Your task to perform on an android device: Open Google Maps and go to "Timeline" Image 0: 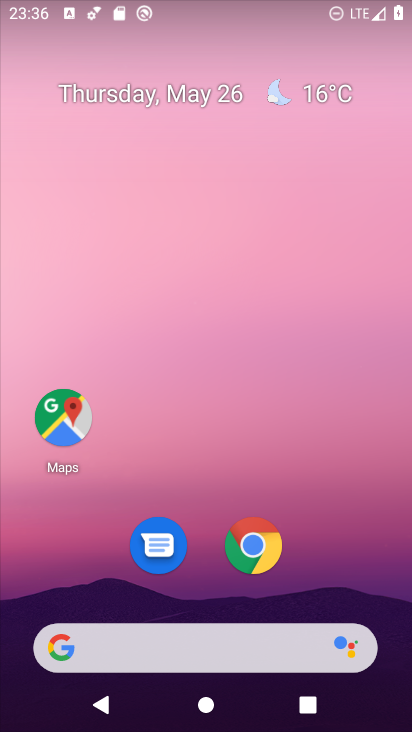
Step 0: press home button
Your task to perform on an android device: Open Google Maps and go to "Timeline" Image 1: 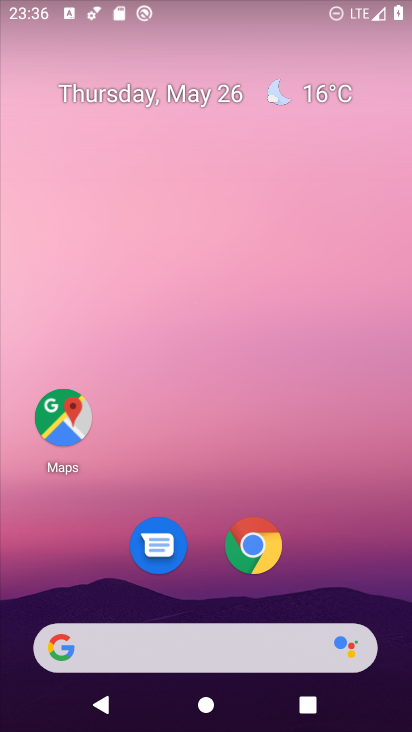
Step 1: click (47, 414)
Your task to perform on an android device: Open Google Maps and go to "Timeline" Image 2: 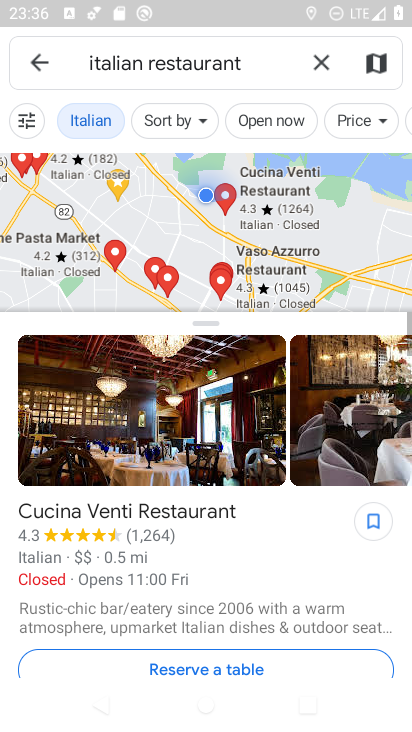
Step 2: click (38, 69)
Your task to perform on an android device: Open Google Maps and go to "Timeline" Image 3: 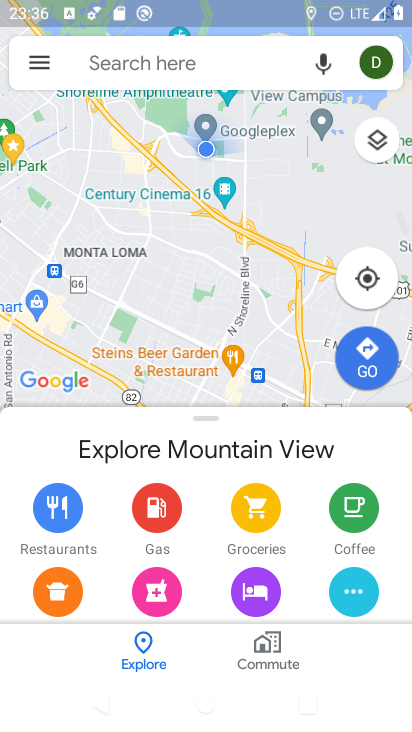
Step 3: click (37, 64)
Your task to perform on an android device: Open Google Maps and go to "Timeline" Image 4: 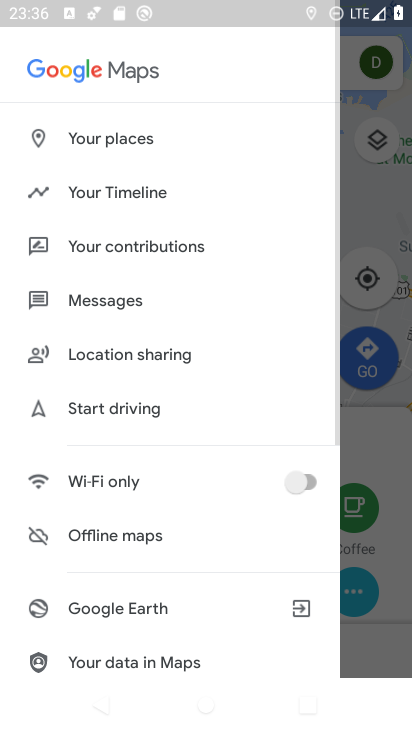
Step 4: click (124, 196)
Your task to perform on an android device: Open Google Maps and go to "Timeline" Image 5: 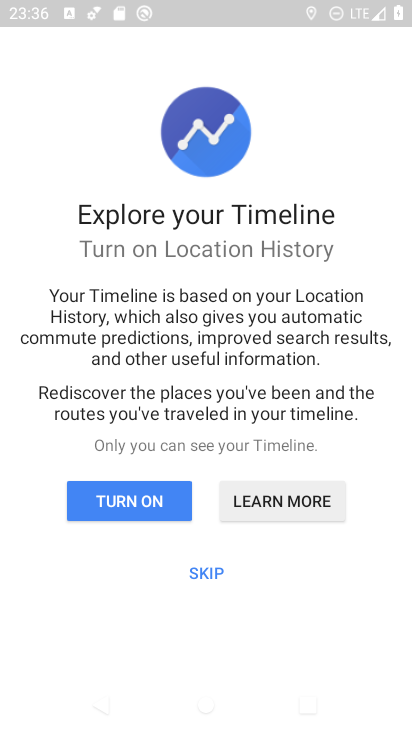
Step 5: click (111, 499)
Your task to perform on an android device: Open Google Maps and go to "Timeline" Image 6: 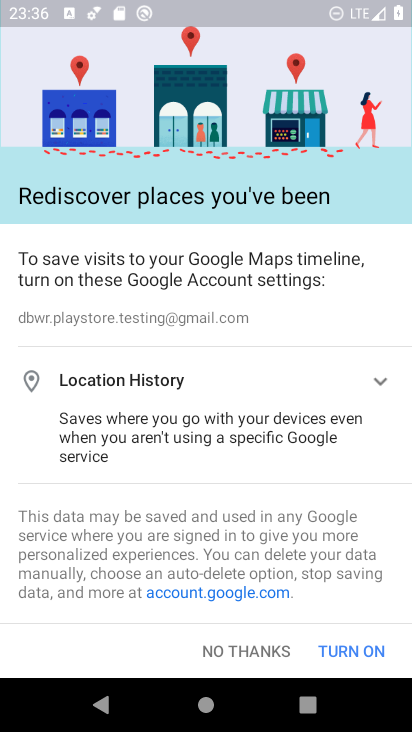
Step 6: task complete